Your task to perform on an android device: turn on showing notifications on the lock screen Image 0: 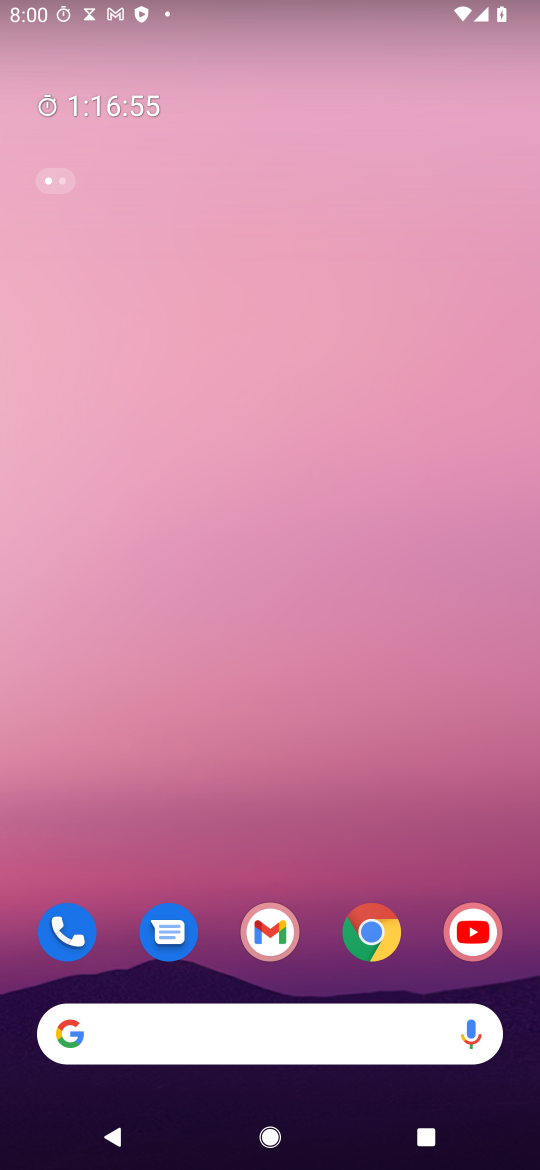
Step 0: press home button
Your task to perform on an android device: turn on showing notifications on the lock screen Image 1: 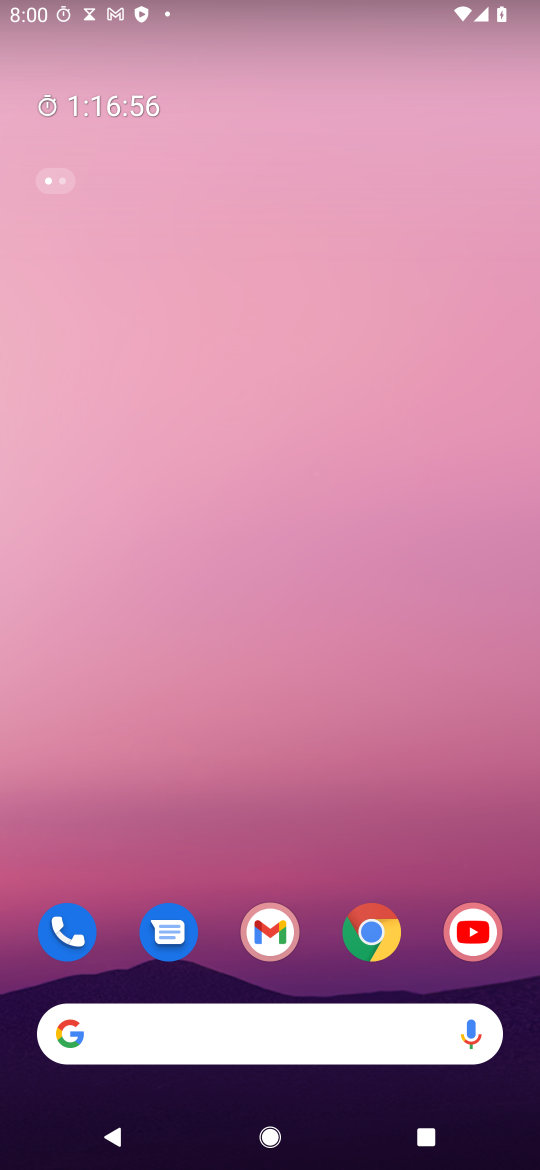
Step 1: drag from (390, 870) to (338, 47)
Your task to perform on an android device: turn on showing notifications on the lock screen Image 2: 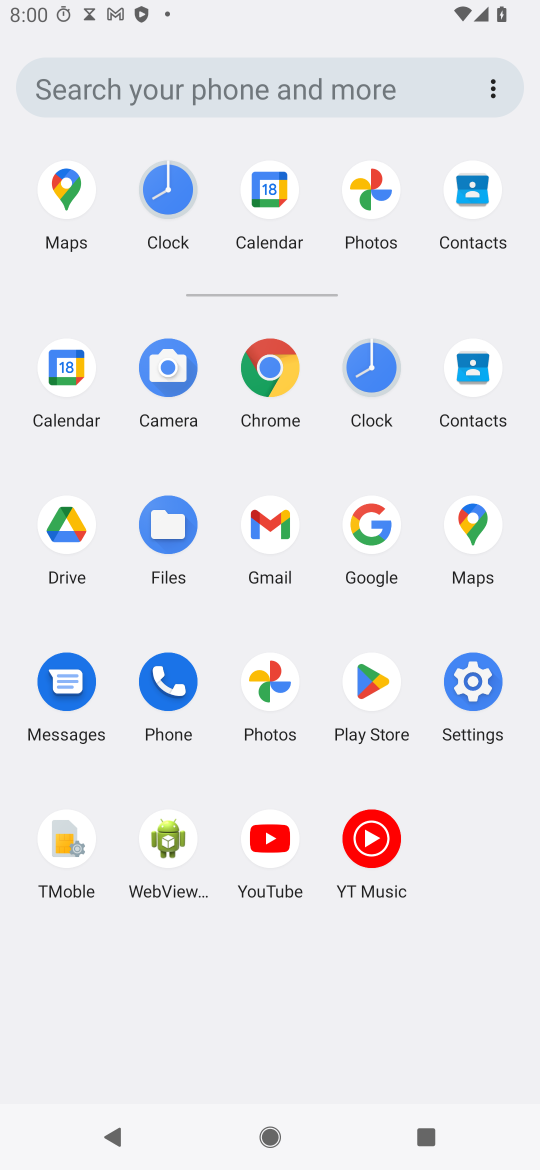
Step 2: click (479, 685)
Your task to perform on an android device: turn on showing notifications on the lock screen Image 3: 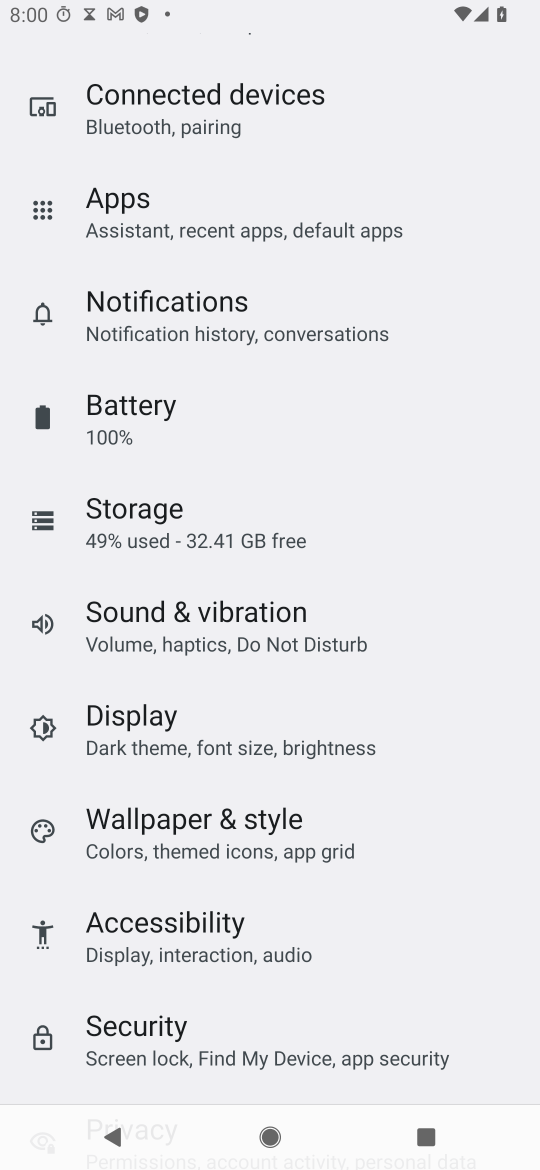
Step 3: drag from (334, 775) to (330, 271)
Your task to perform on an android device: turn on showing notifications on the lock screen Image 4: 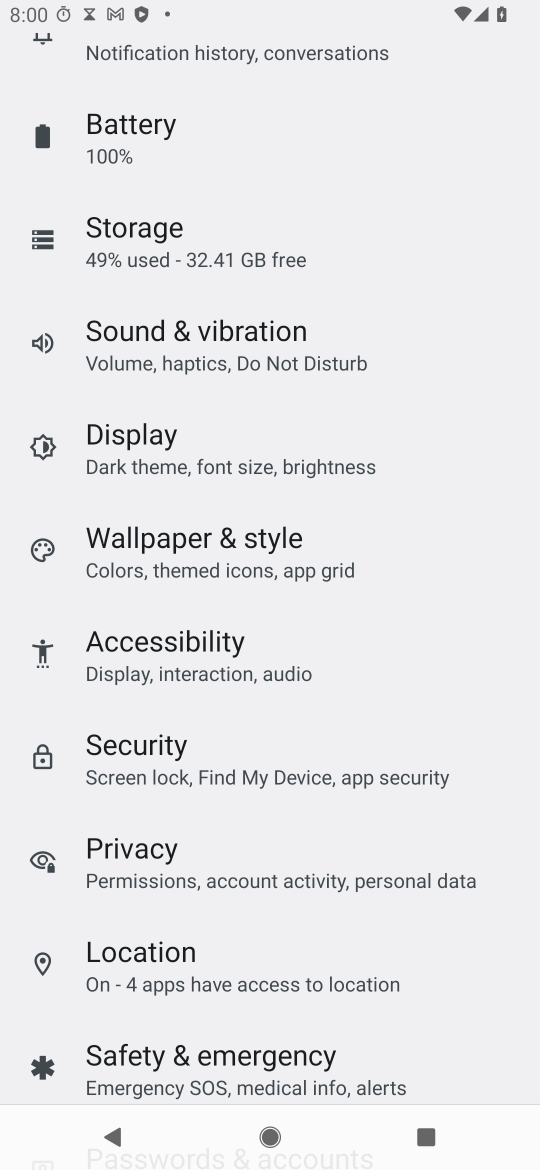
Step 4: drag from (260, 288) to (266, 738)
Your task to perform on an android device: turn on showing notifications on the lock screen Image 5: 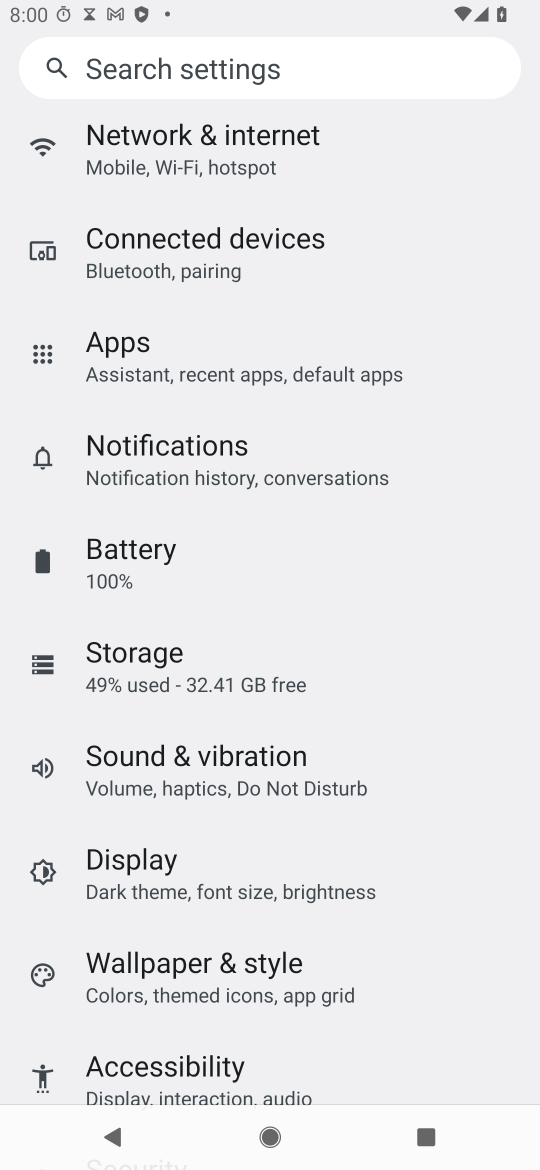
Step 5: click (171, 454)
Your task to perform on an android device: turn on showing notifications on the lock screen Image 6: 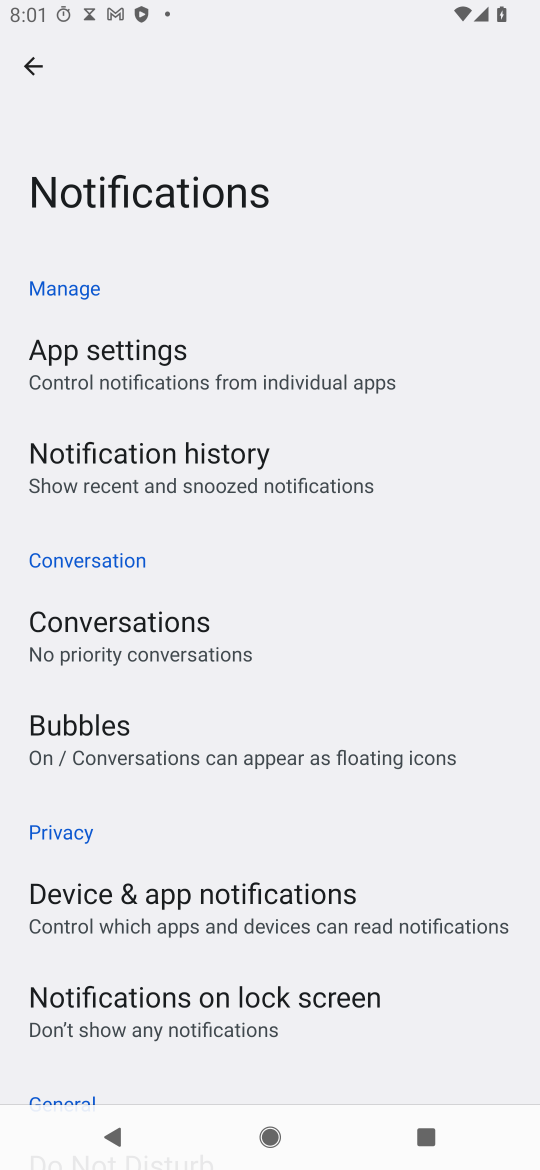
Step 6: click (330, 992)
Your task to perform on an android device: turn on showing notifications on the lock screen Image 7: 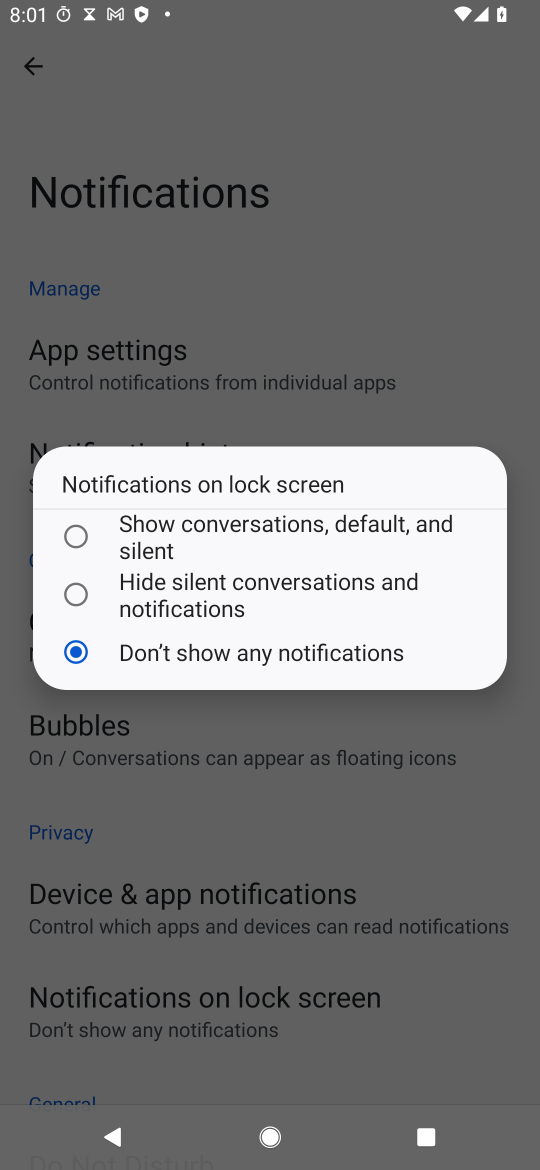
Step 7: click (189, 525)
Your task to perform on an android device: turn on showing notifications on the lock screen Image 8: 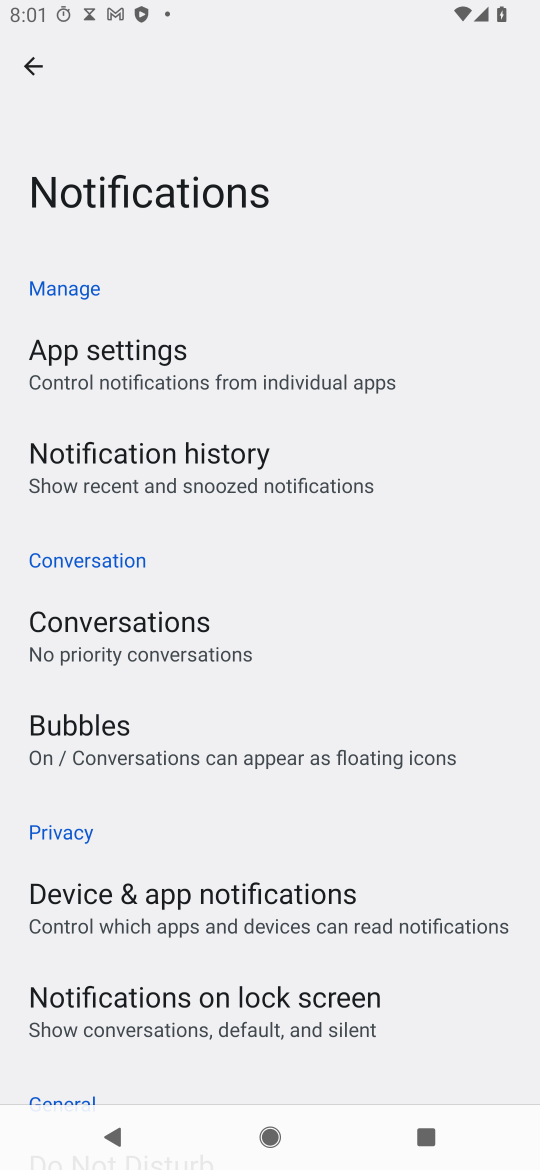
Step 8: task complete